Your task to perform on an android device: Open maps Image 0: 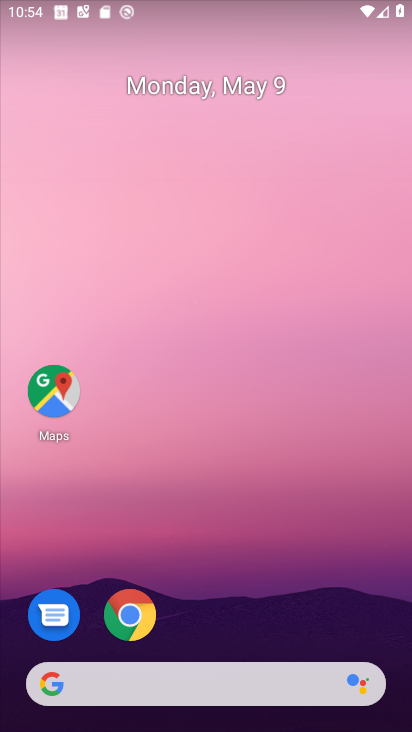
Step 0: drag from (274, 706) to (257, 176)
Your task to perform on an android device: Open maps Image 1: 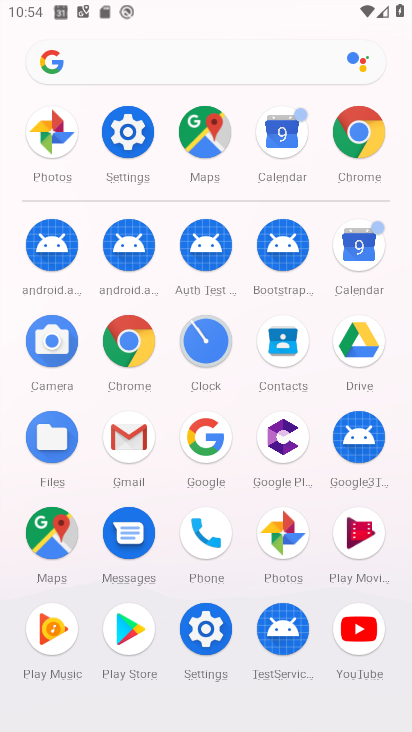
Step 1: click (197, 141)
Your task to perform on an android device: Open maps Image 2: 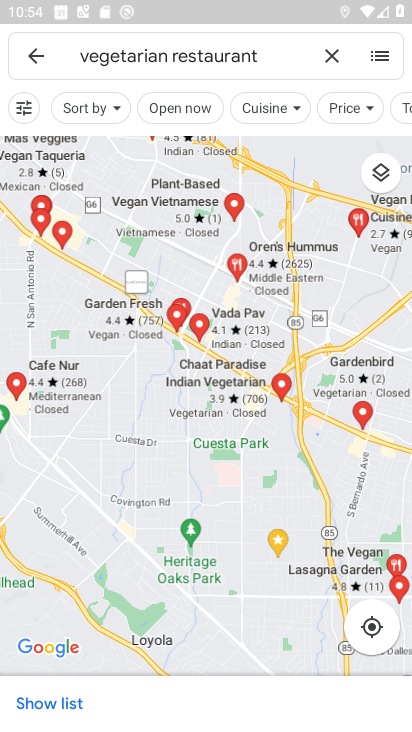
Step 2: click (38, 47)
Your task to perform on an android device: Open maps Image 3: 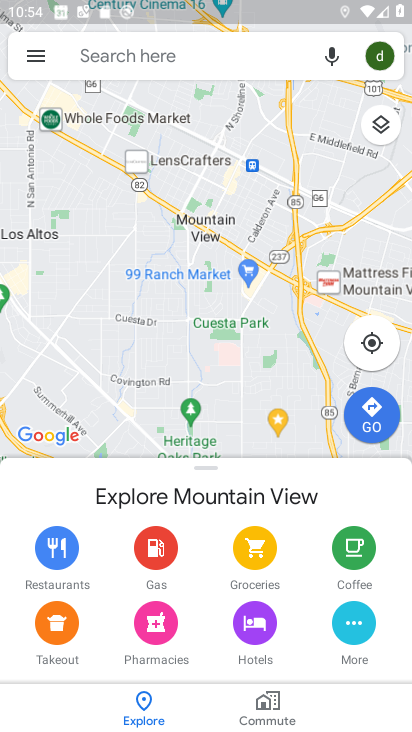
Step 3: task complete